Your task to perform on an android device: Search for sushi restaurants on Maps Image 0: 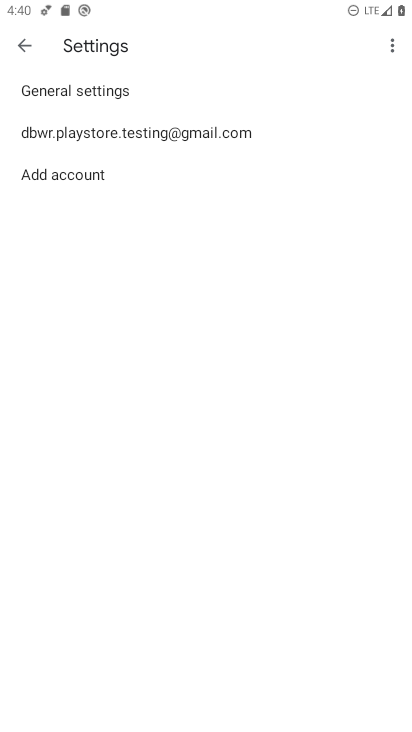
Step 0: press home button
Your task to perform on an android device: Search for sushi restaurants on Maps Image 1: 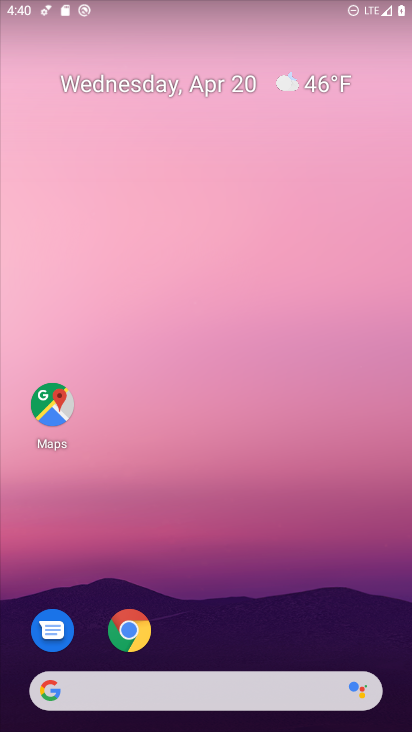
Step 1: drag from (283, 595) to (258, 103)
Your task to perform on an android device: Search for sushi restaurants on Maps Image 2: 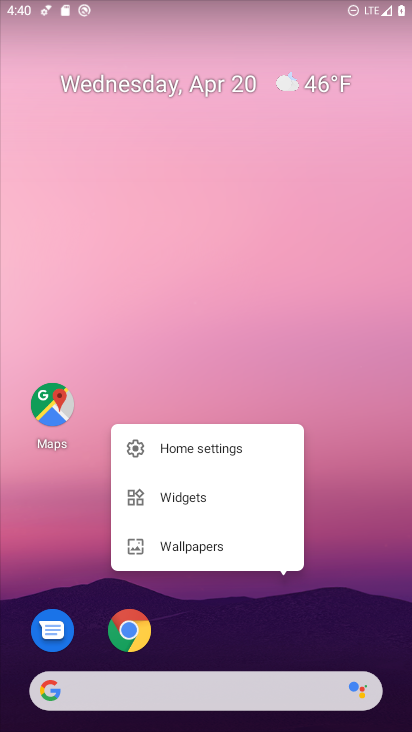
Step 2: click (366, 620)
Your task to perform on an android device: Search for sushi restaurants on Maps Image 3: 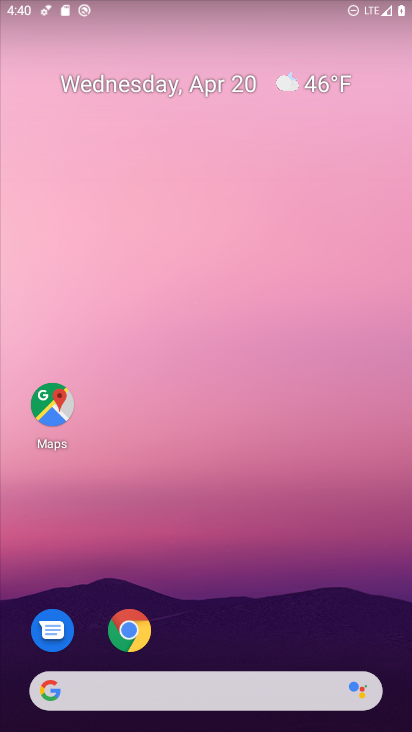
Step 3: drag from (345, 635) to (349, 73)
Your task to perform on an android device: Search for sushi restaurants on Maps Image 4: 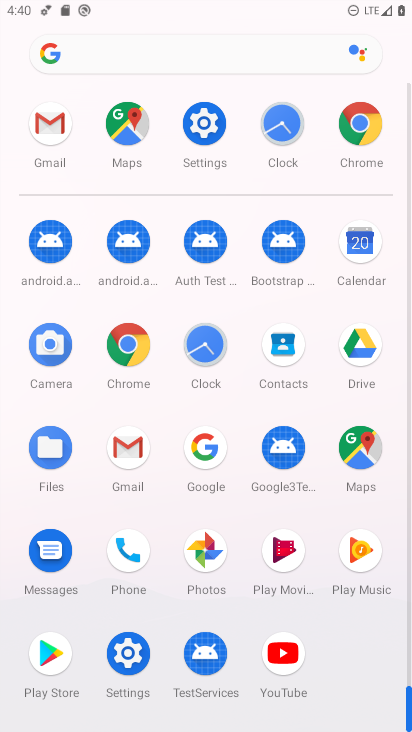
Step 4: click (351, 460)
Your task to perform on an android device: Search for sushi restaurants on Maps Image 5: 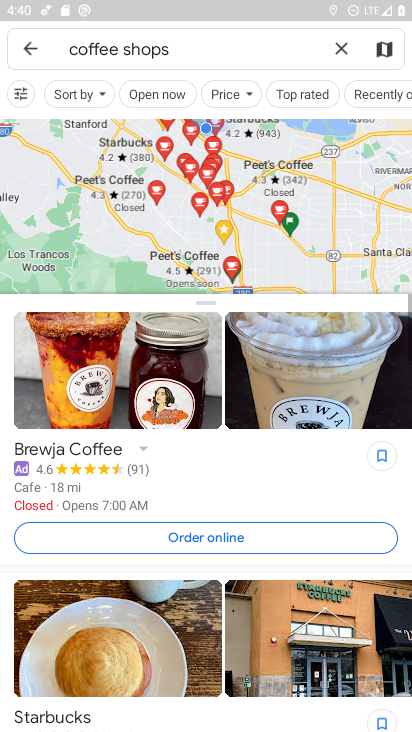
Step 5: click (349, 46)
Your task to perform on an android device: Search for sushi restaurants on Maps Image 6: 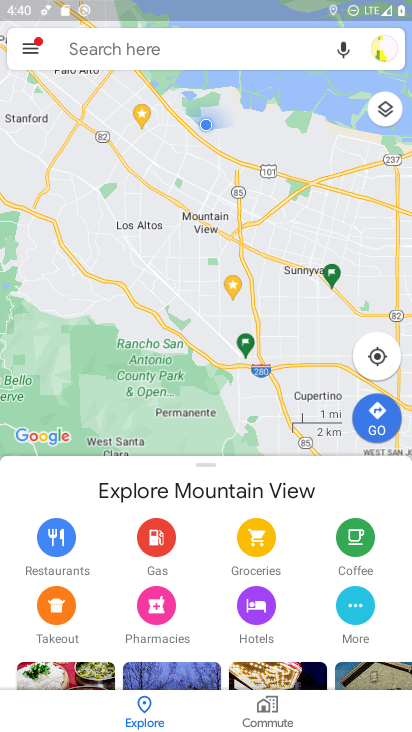
Step 6: click (232, 50)
Your task to perform on an android device: Search for sushi restaurants on Maps Image 7: 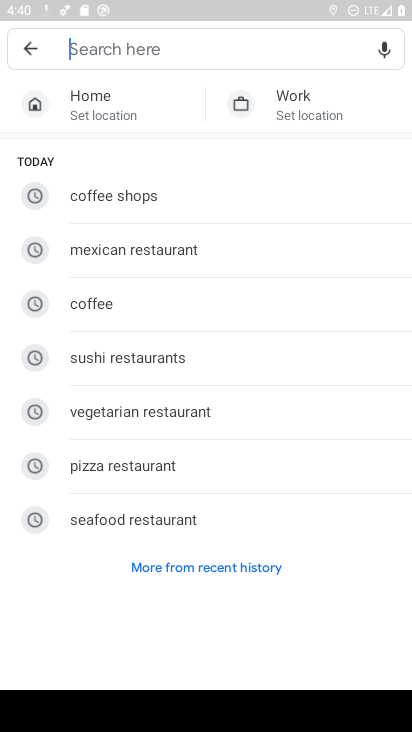
Step 7: type "sushi restaurant"
Your task to perform on an android device: Search for sushi restaurants on Maps Image 8: 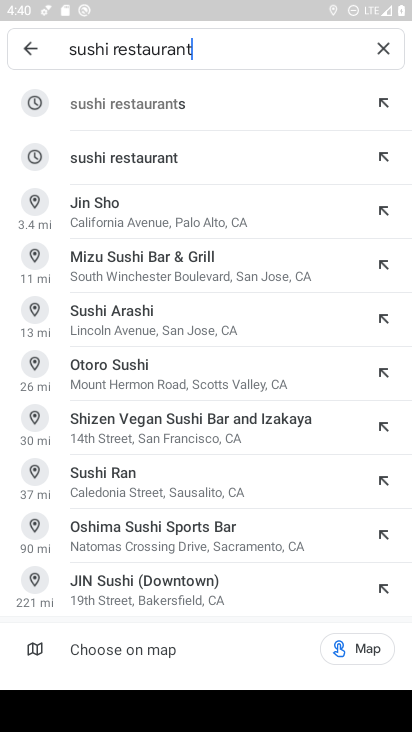
Step 8: click (182, 167)
Your task to perform on an android device: Search for sushi restaurants on Maps Image 9: 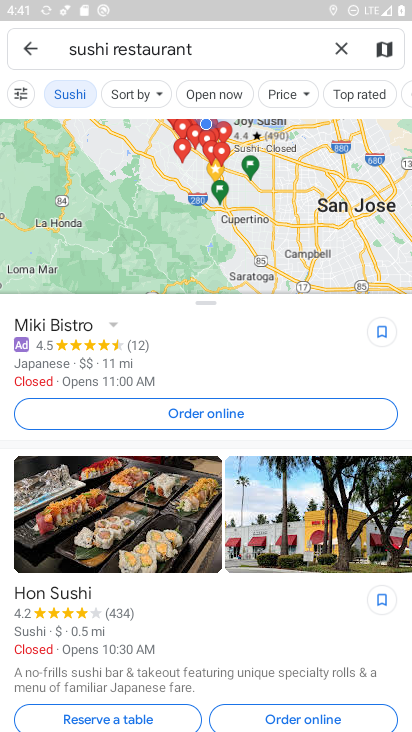
Step 9: task complete